Your task to perform on an android device: check data usage Image 0: 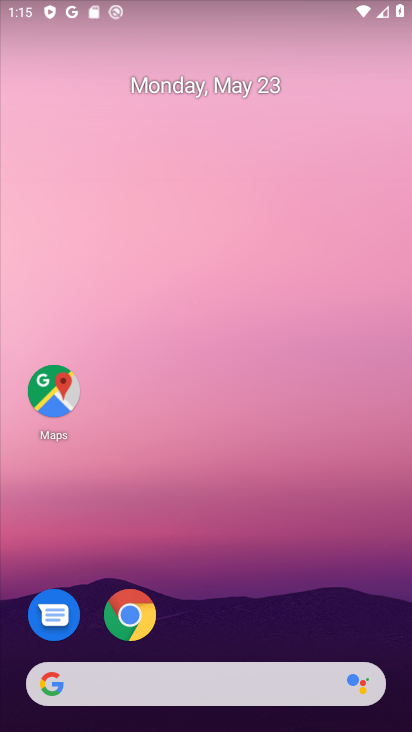
Step 0: drag from (206, 646) to (110, 139)
Your task to perform on an android device: check data usage Image 1: 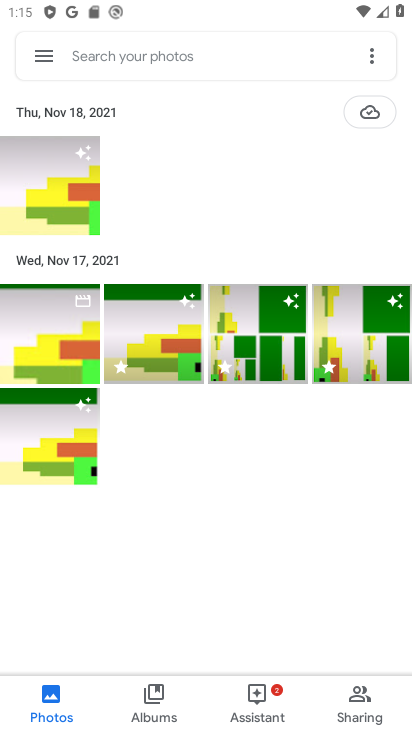
Step 1: press home button
Your task to perform on an android device: check data usage Image 2: 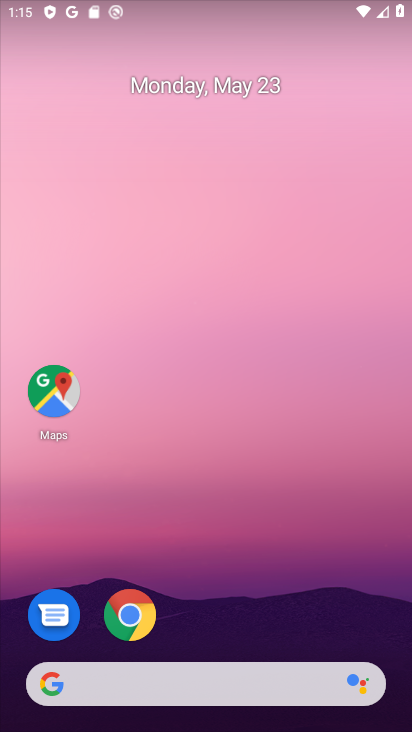
Step 2: drag from (233, 644) to (185, 50)
Your task to perform on an android device: check data usage Image 3: 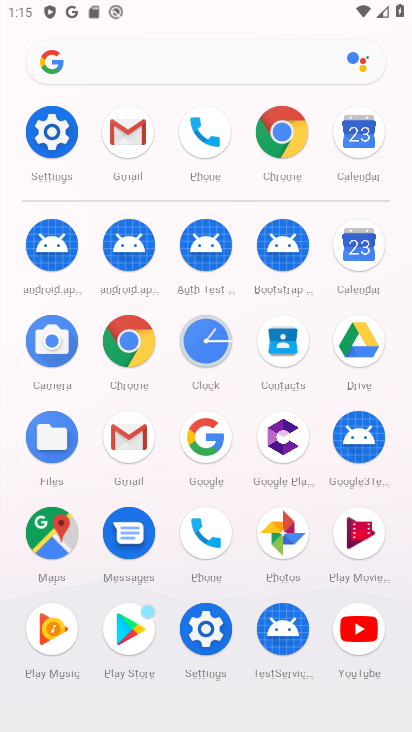
Step 3: click (60, 124)
Your task to perform on an android device: check data usage Image 4: 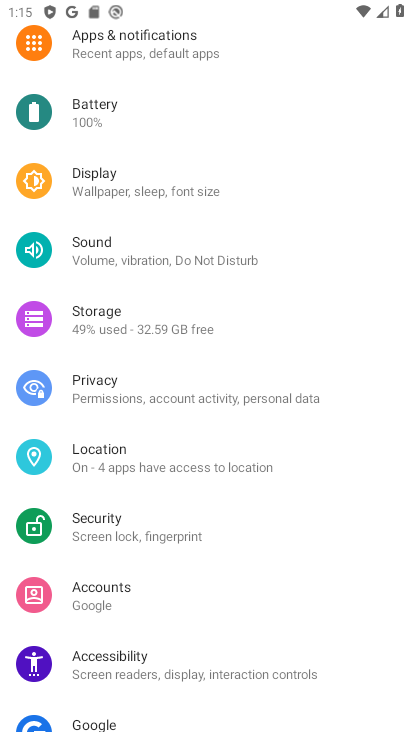
Step 4: drag from (60, 124) to (28, 560)
Your task to perform on an android device: check data usage Image 5: 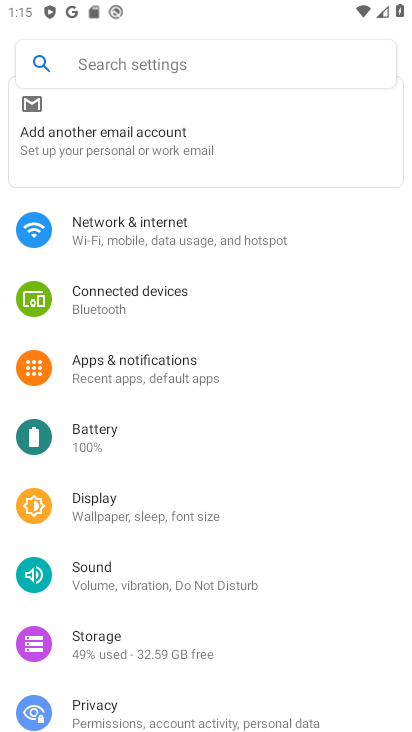
Step 5: click (173, 221)
Your task to perform on an android device: check data usage Image 6: 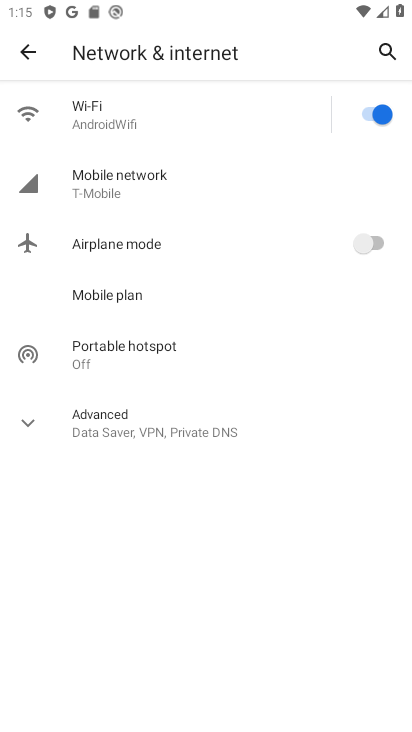
Step 6: click (118, 169)
Your task to perform on an android device: check data usage Image 7: 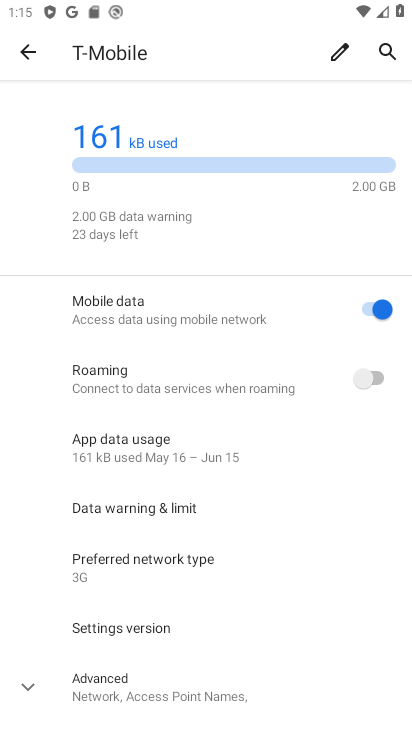
Step 7: task complete